Your task to perform on an android device: Open settings Image 0: 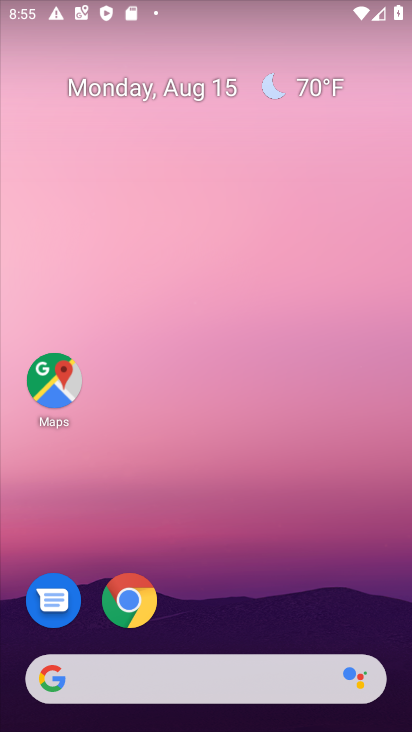
Step 0: drag from (214, 619) to (248, 102)
Your task to perform on an android device: Open settings Image 1: 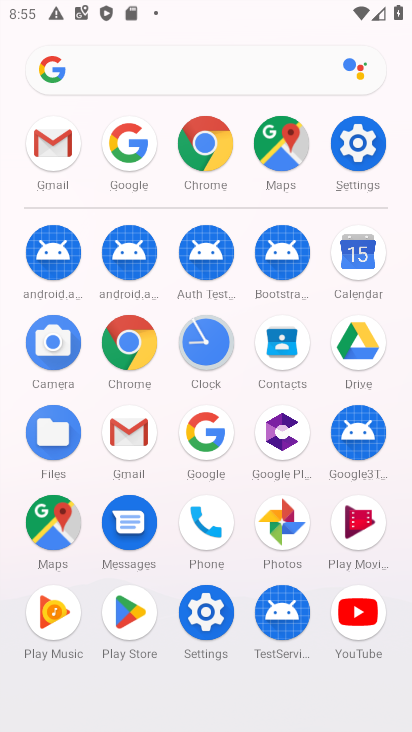
Step 1: click (356, 146)
Your task to perform on an android device: Open settings Image 2: 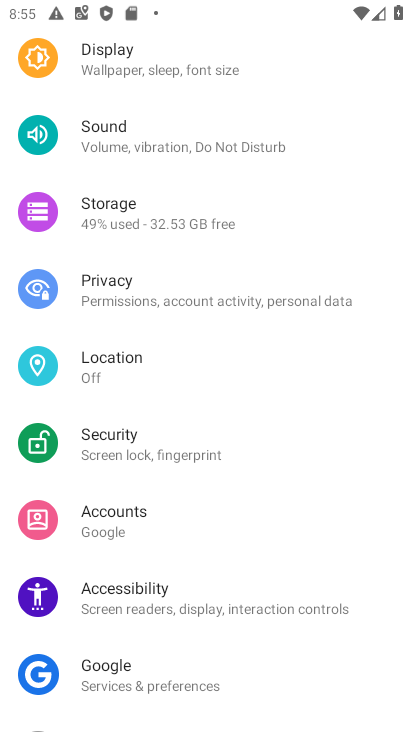
Step 2: task complete